Your task to perform on an android device: stop showing notifications on the lock screen Image 0: 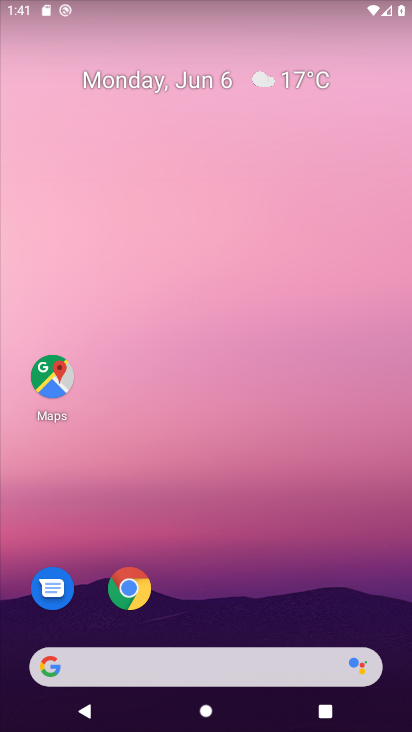
Step 0: drag from (206, 633) to (215, 81)
Your task to perform on an android device: stop showing notifications on the lock screen Image 1: 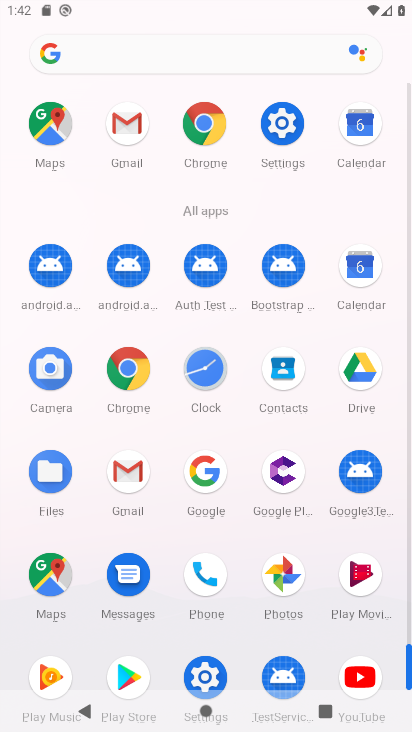
Step 1: click (281, 124)
Your task to perform on an android device: stop showing notifications on the lock screen Image 2: 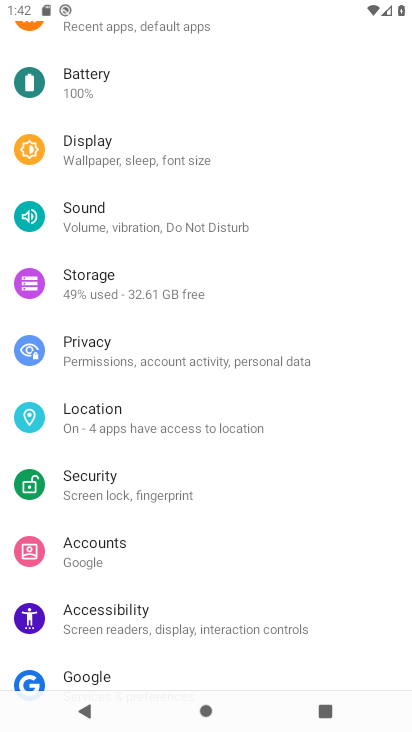
Step 2: drag from (185, 227) to (183, 442)
Your task to perform on an android device: stop showing notifications on the lock screen Image 3: 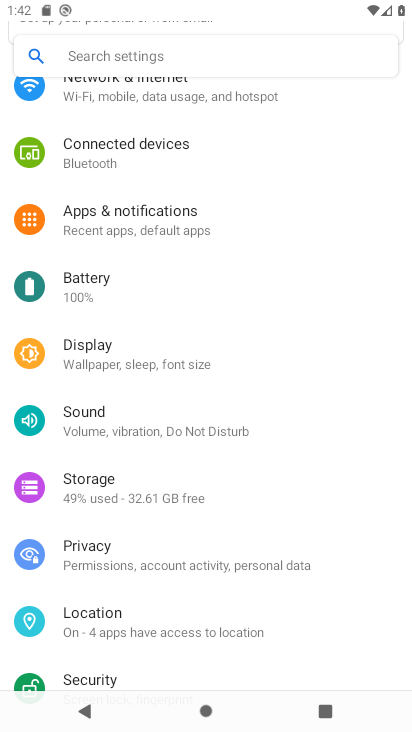
Step 3: drag from (120, 232) to (156, 466)
Your task to perform on an android device: stop showing notifications on the lock screen Image 4: 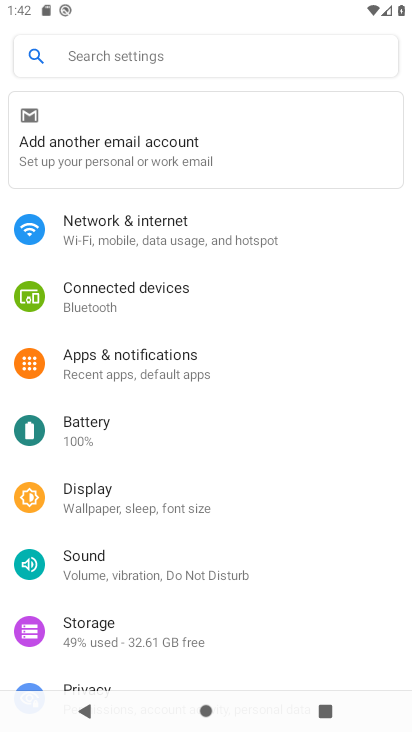
Step 4: click (177, 365)
Your task to perform on an android device: stop showing notifications on the lock screen Image 5: 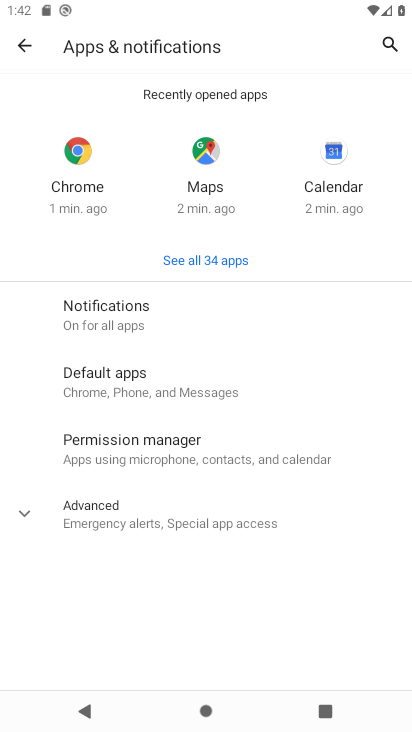
Step 5: click (108, 317)
Your task to perform on an android device: stop showing notifications on the lock screen Image 6: 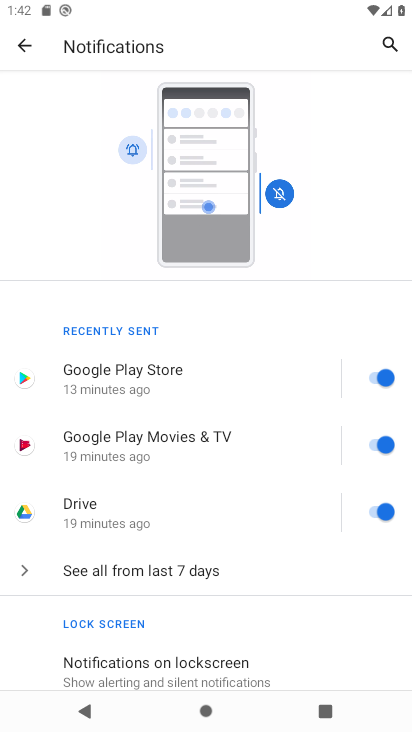
Step 6: drag from (168, 621) to (238, 343)
Your task to perform on an android device: stop showing notifications on the lock screen Image 7: 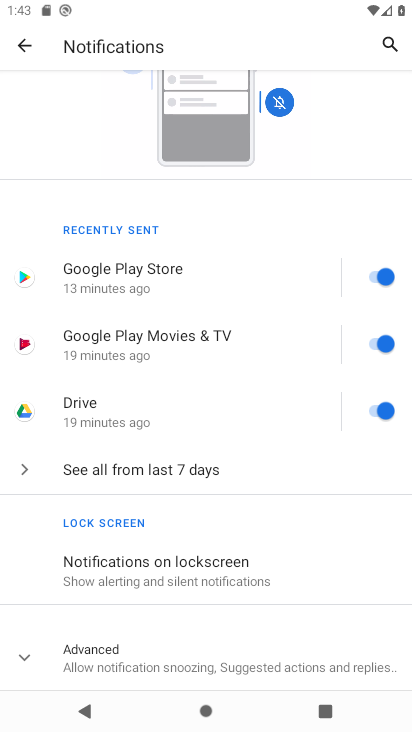
Step 7: click (114, 581)
Your task to perform on an android device: stop showing notifications on the lock screen Image 8: 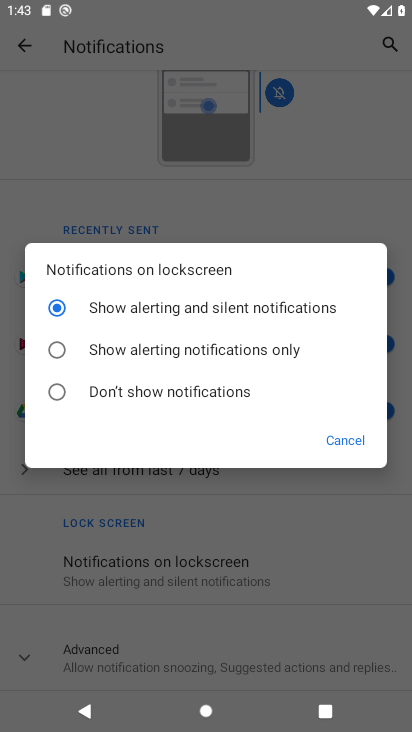
Step 8: click (71, 398)
Your task to perform on an android device: stop showing notifications on the lock screen Image 9: 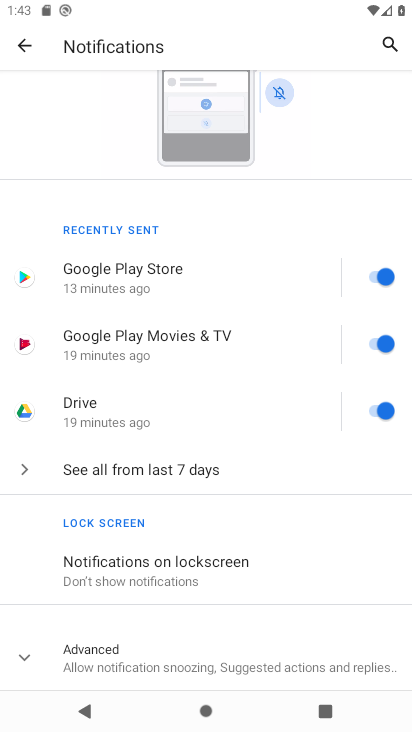
Step 9: task complete